Your task to perform on an android device: turn on the 12-hour format for clock Image 0: 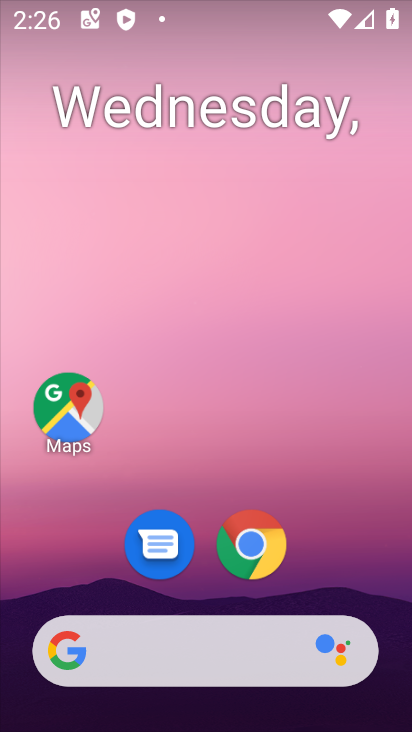
Step 0: press home button
Your task to perform on an android device: turn on the 12-hour format for clock Image 1: 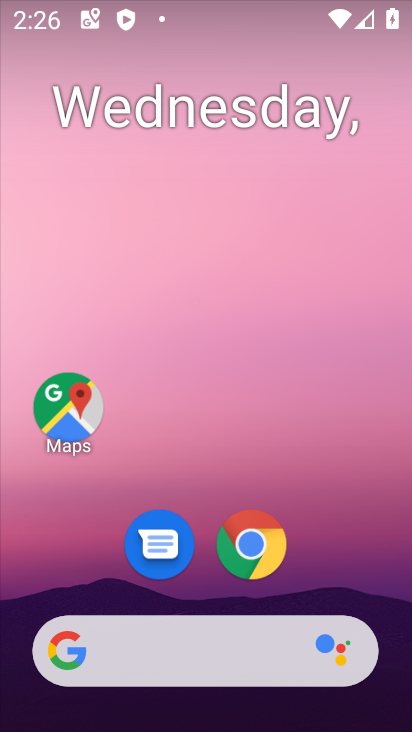
Step 1: drag from (358, 570) to (324, 166)
Your task to perform on an android device: turn on the 12-hour format for clock Image 2: 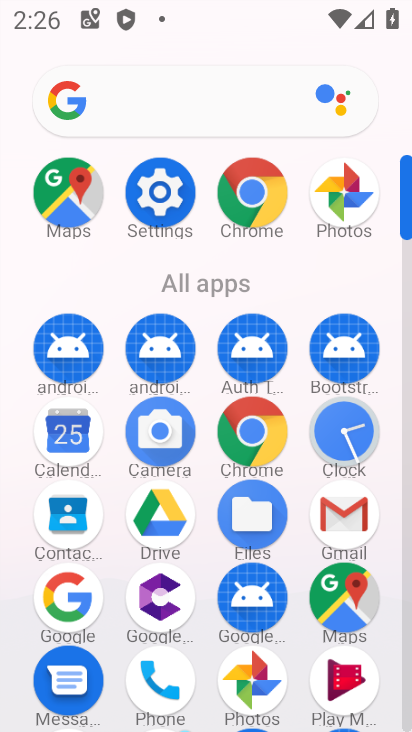
Step 2: click (354, 413)
Your task to perform on an android device: turn on the 12-hour format for clock Image 3: 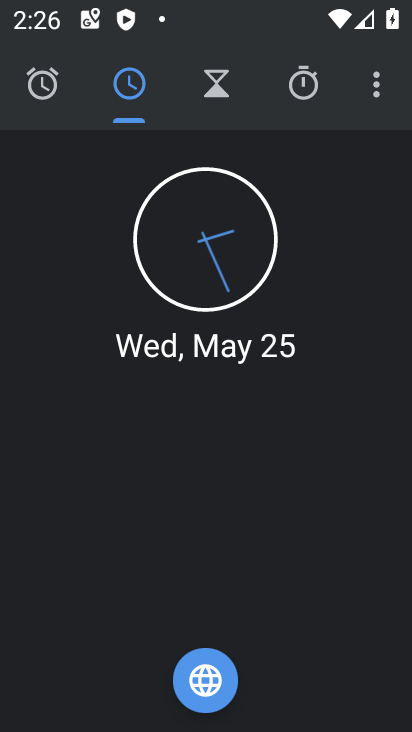
Step 3: click (378, 83)
Your task to perform on an android device: turn on the 12-hour format for clock Image 4: 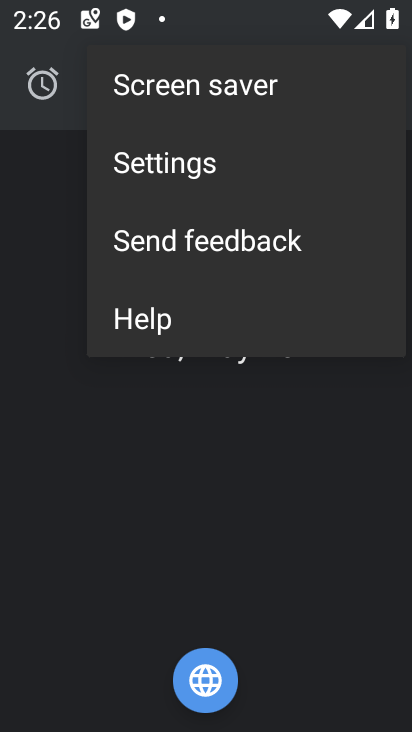
Step 4: click (180, 176)
Your task to perform on an android device: turn on the 12-hour format for clock Image 5: 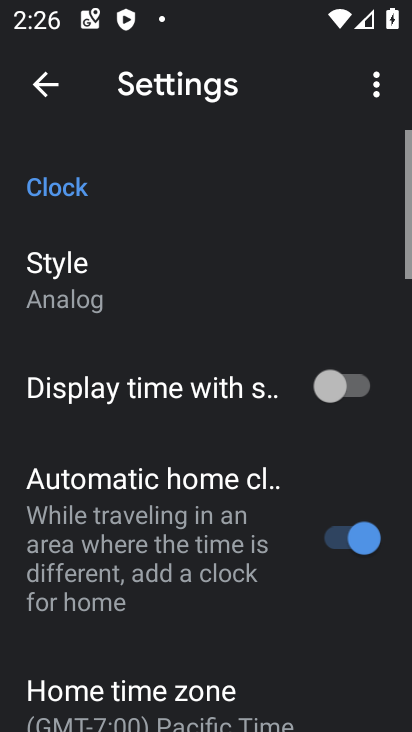
Step 5: drag from (193, 604) to (184, 289)
Your task to perform on an android device: turn on the 12-hour format for clock Image 6: 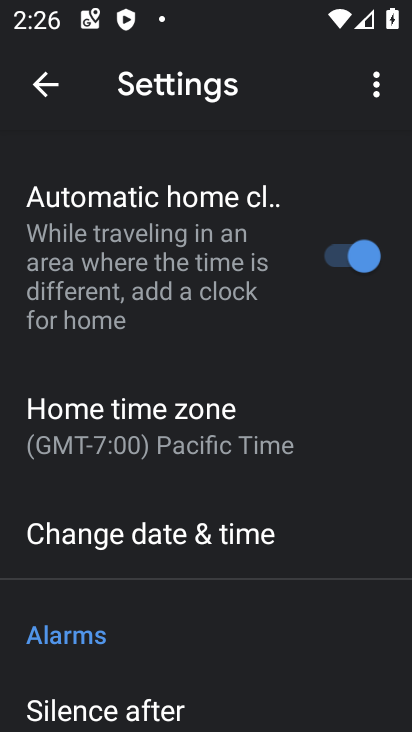
Step 6: click (203, 505)
Your task to perform on an android device: turn on the 12-hour format for clock Image 7: 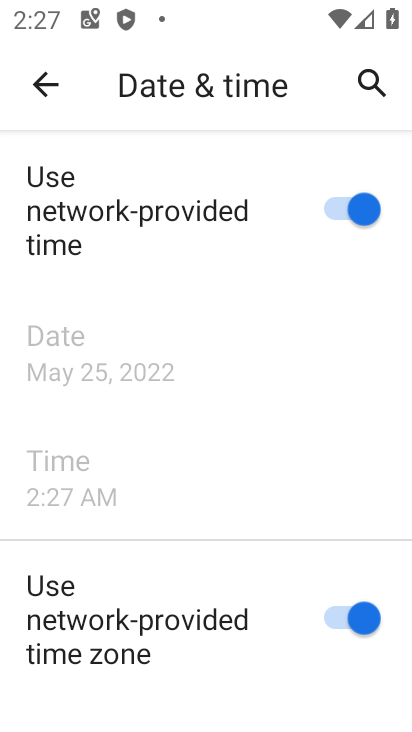
Step 7: task complete